Your task to perform on an android device: What's the weather going to be tomorrow? Image 0: 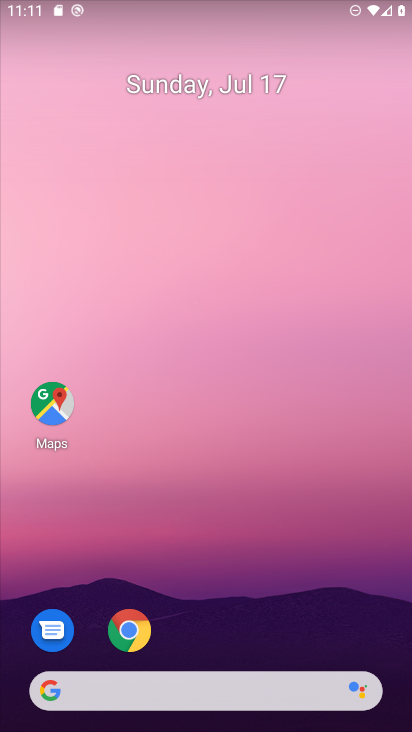
Step 0: click (150, 692)
Your task to perform on an android device: What's the weather going to be tomorrow? Image 1: 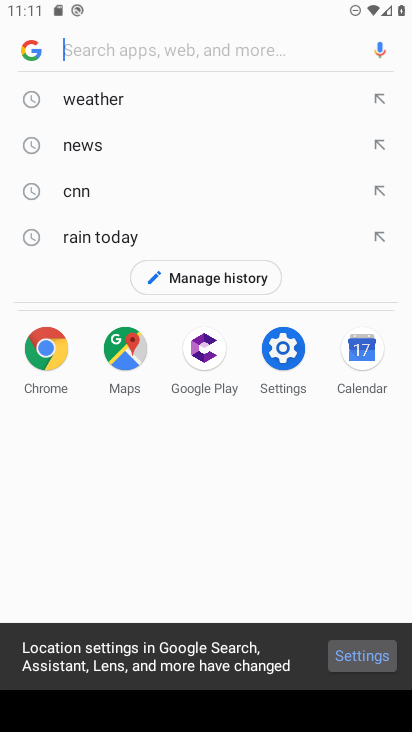
Step 1: click (88, 97)
Your task to perform on an android device: What's the weather going to be tomorrow? Image 2: 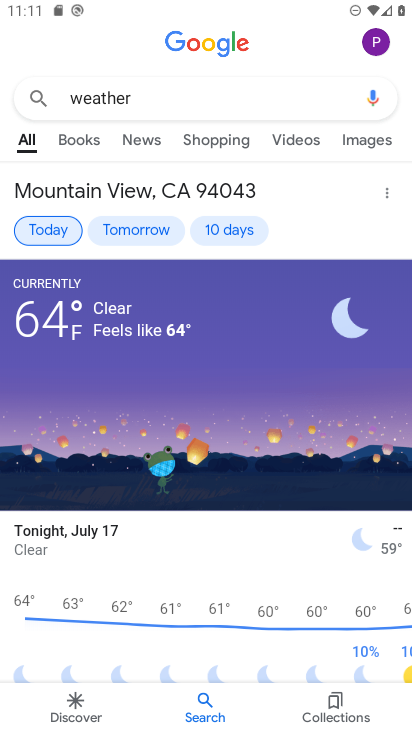
Step 2: click (122, 226)
Your task to perform on an android device: What's the weather going to be tomorrow? Image 3: 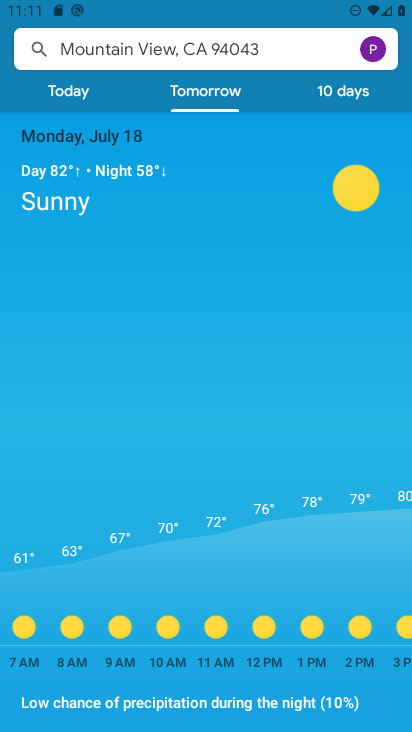
Step 3: task complete